Your task to perform on an android device: Go to settings Image 0: 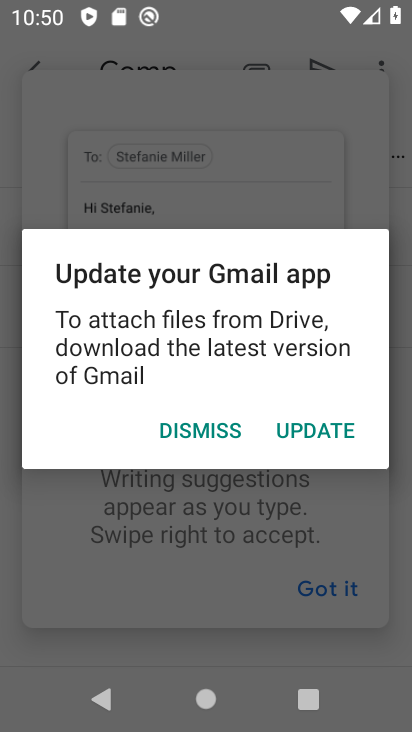
Step 0: click (228, 432)
Your task to perform on an android device: Go to settings Image 1: 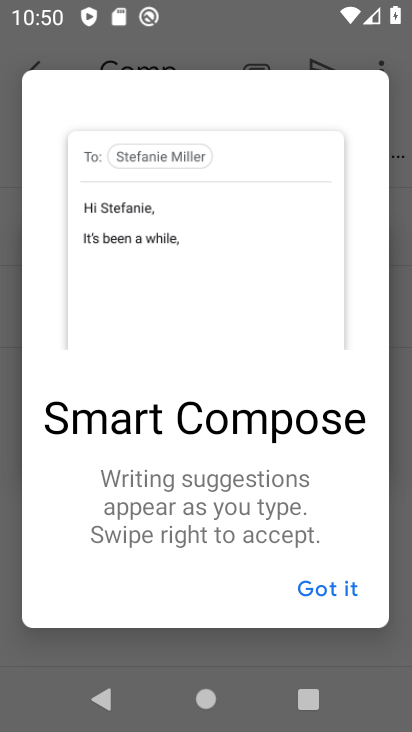
Step 1: click (331, 587)
Your task to perform on an android device: Go to settings Image 2: 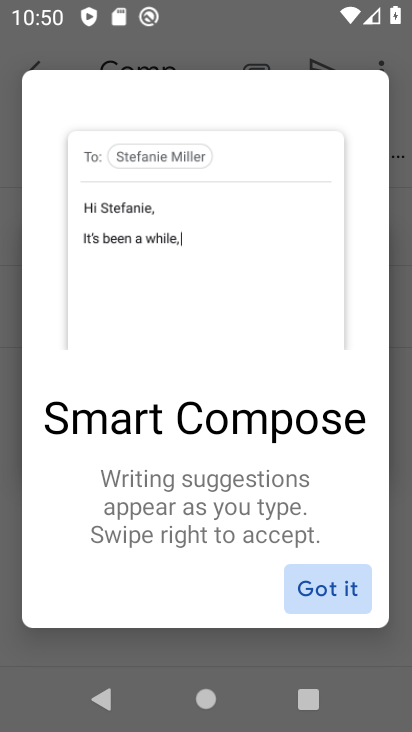
Step 2: click (330, 586)
Your task to perform on an android device: Go to settings Image 3: 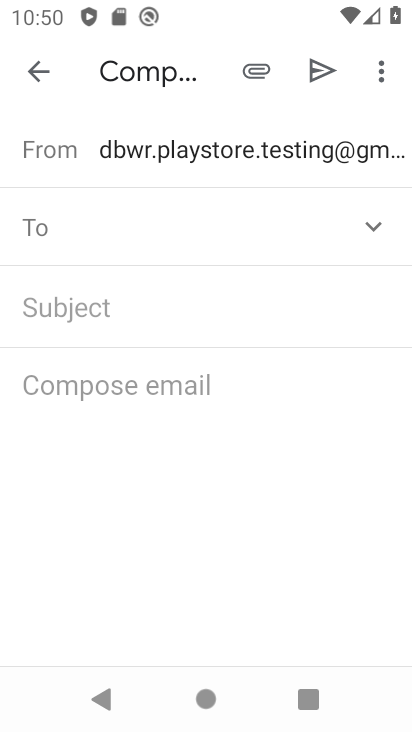
Step 3: click (26, 68)
Your task to perform on an android device: Go to settings Image 4: 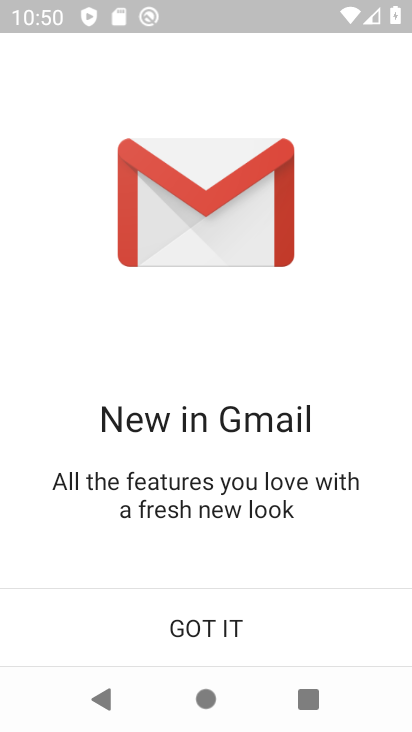
Step 4: press back button
Your task to perform on an android device: Go to settings Image 5: 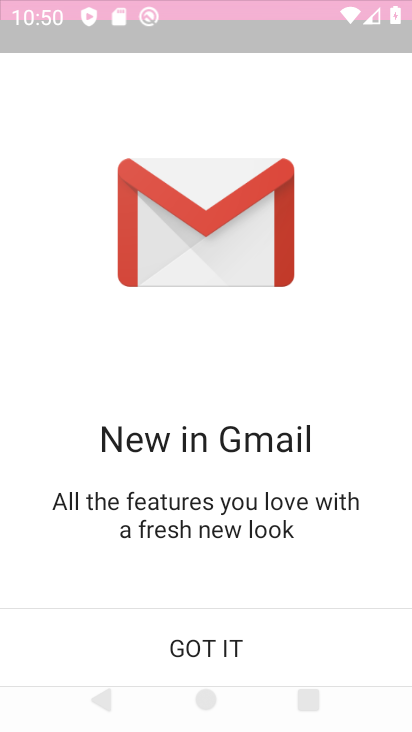
Step 5: press back button
Your task to perform on an android device: Go to settings Image 6: 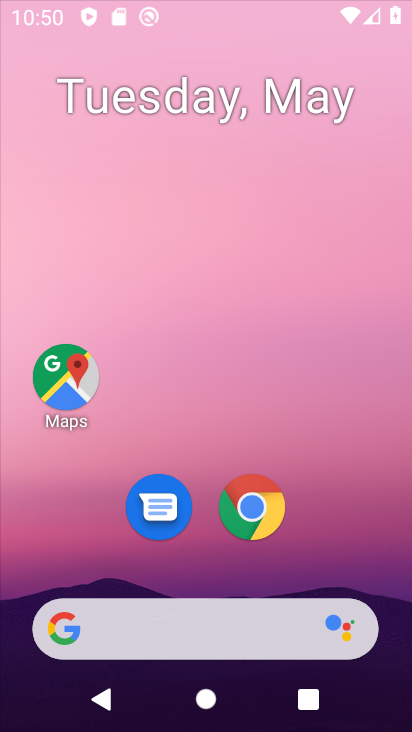
Step 6: press back button
Your task to perform on an android device: Go to settings Image 7: 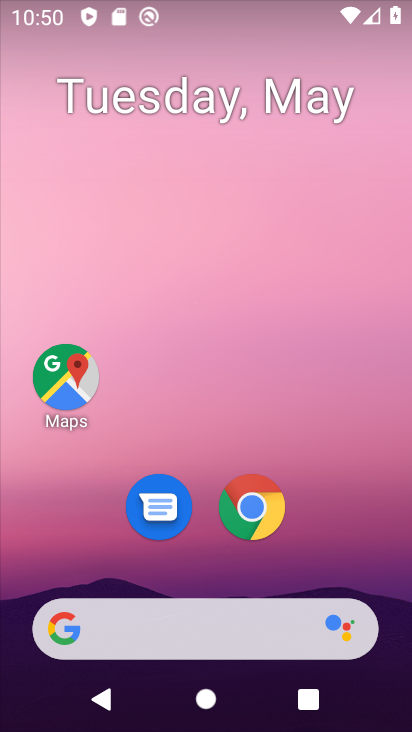
Step 7: drag from (265, 680) to (104, 160)
Your task to perform on an android device: Go to settings Image 8: 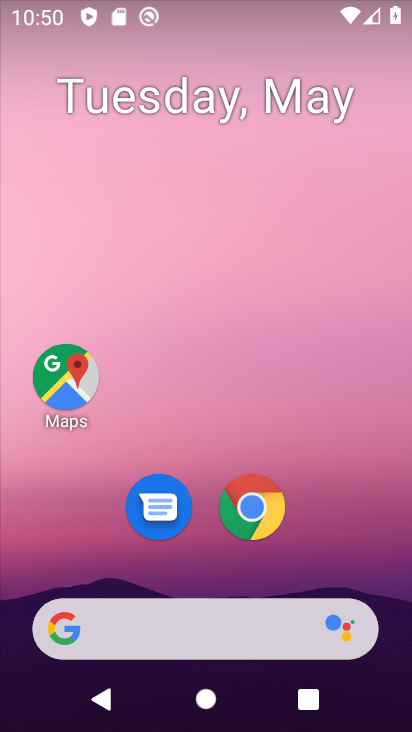
Step 8: drag from (269, 670) to (227, 164)
Your task to perform on an android device: Go to settings Image 9: 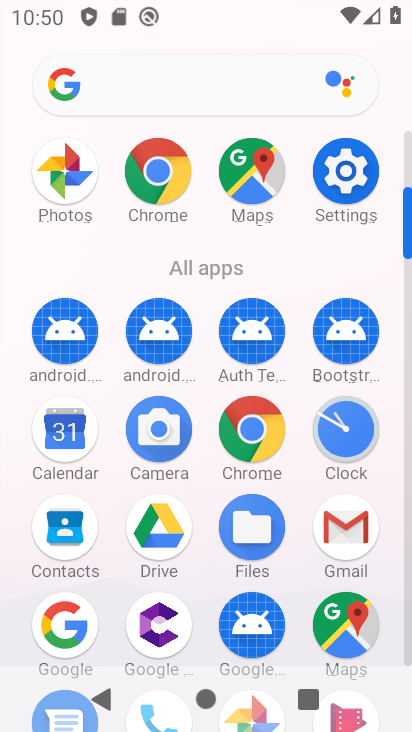
Step 9: click (357, 177)
Your task to perform on an android device: Go to settings Image 10: 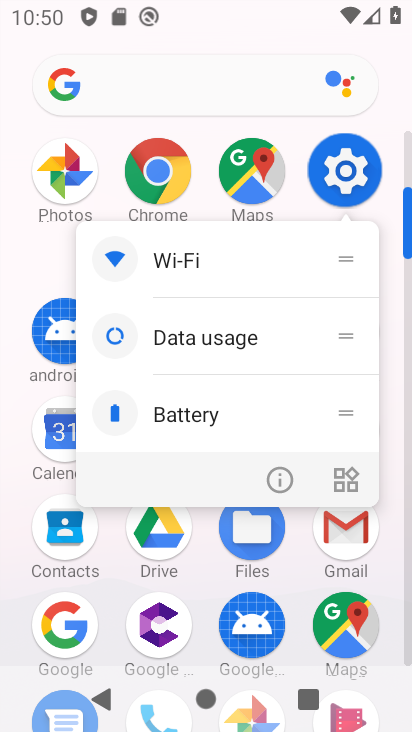
Step 10: click (347, 167)
Your task to perform on an android device: Go to settings Image 11: 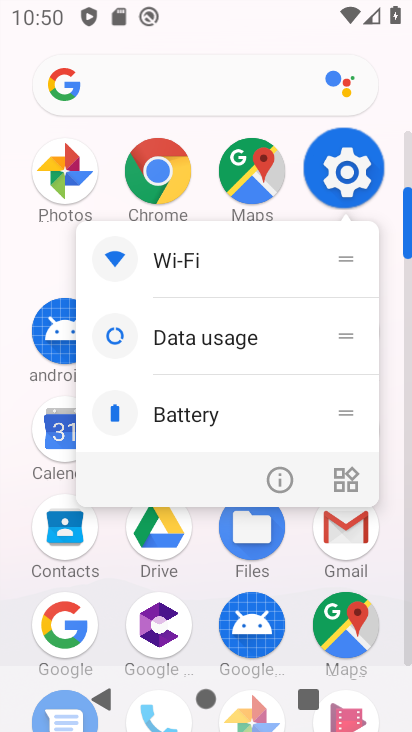
Step 11: click (346, 163)
Your task to perform on an android device: Go to settings Image 12: 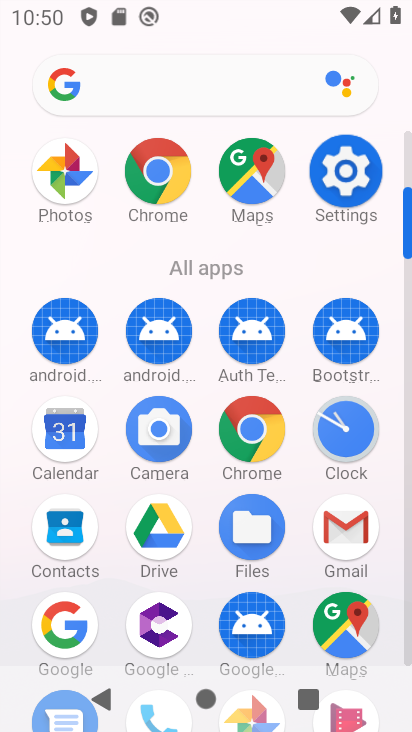
Step 12: click (344, 165)
Your task to perform on an android device: Go to settings Image 13: 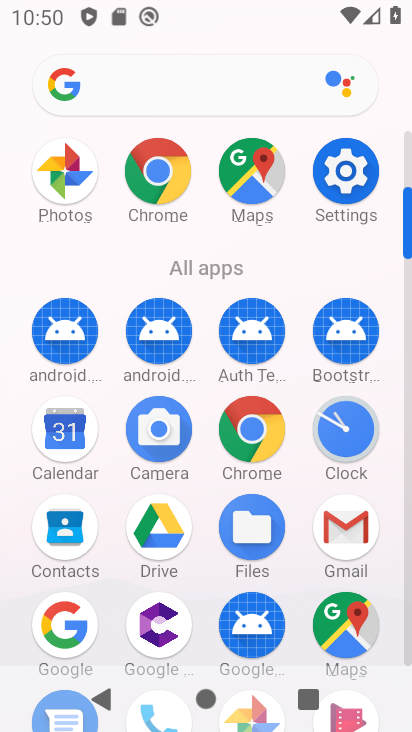
Step 13: click (343, 168)
Your task to perform on an android device: Go to settings Image 14: 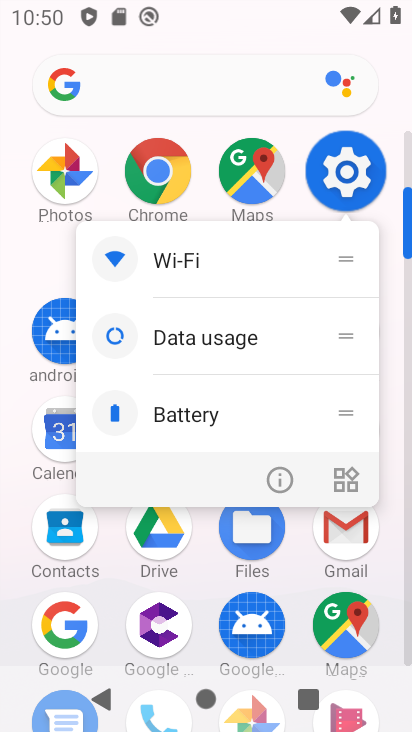
Step 14: click (343, 171)
Your task to perform on an android device: Go to settings Image 15: 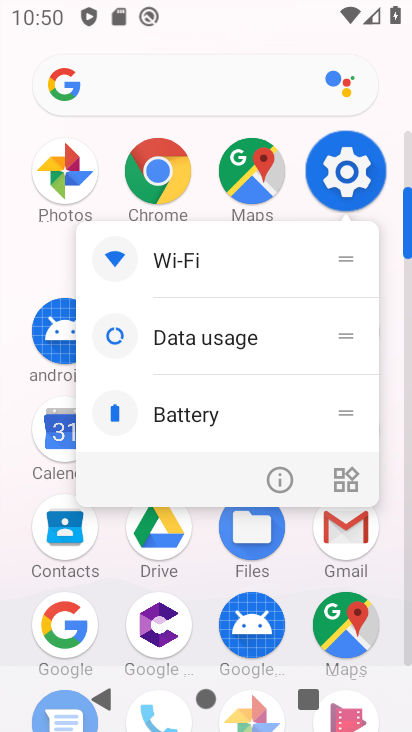
Step 15: click (344, 172)
Your task to perform on an android device: Go to settings Image 16: 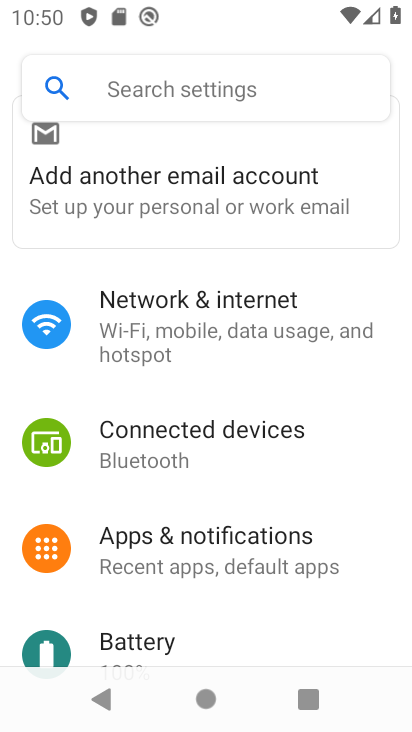
Step 16: task complete